Your task to perform on an android device: Open Wikipedia Image 0: 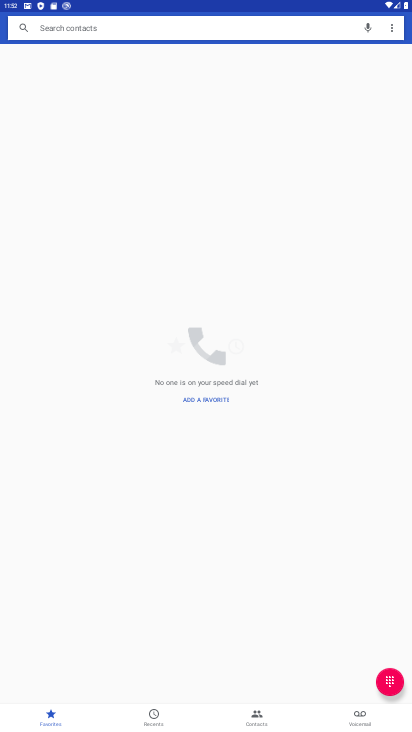
Step 0: press home button
Your task to perform on an android device: Open Wikipedia Image 1: 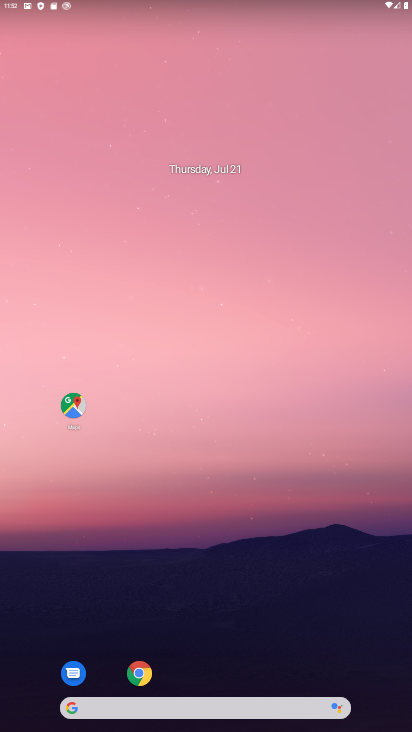
Step 1: click (168, 708)
Your task to perform on an android device: Open Wikipedia Image 2: 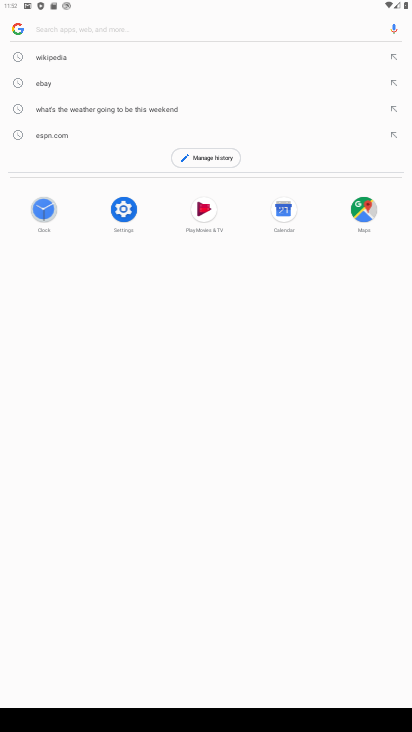
Step 2: type "Open Wikipedia"
Your task to perform on an android device: Open Wikipedia Image 3: 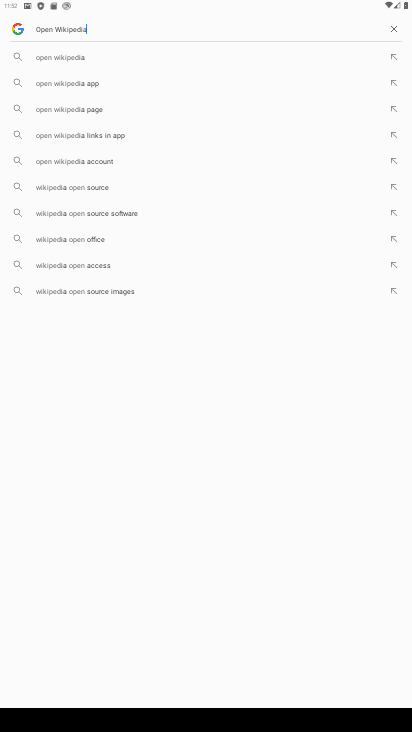
Step 3: press enter
Your task to perform on an android device: Open Wikipedia Image 4: 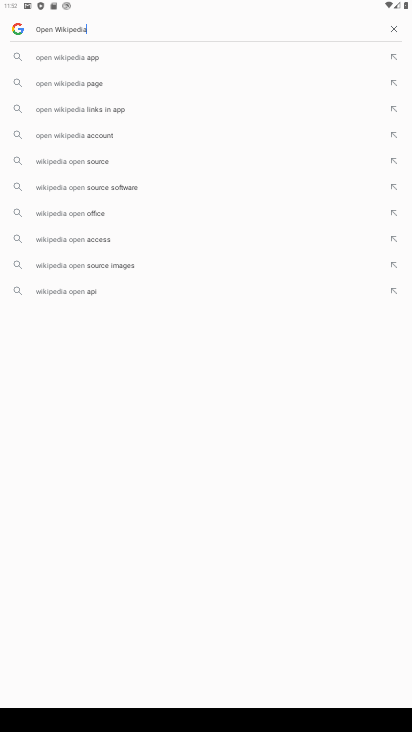
Step 4: type ""
Your task to perform on an android device: Open Wikipedia Image 5: 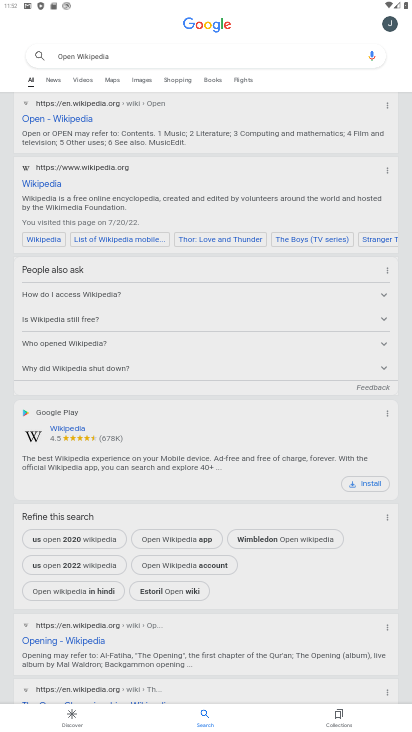
Step 5: click (47, 184)
Your task to perform on an android device: Open Wikipedia Image 6: 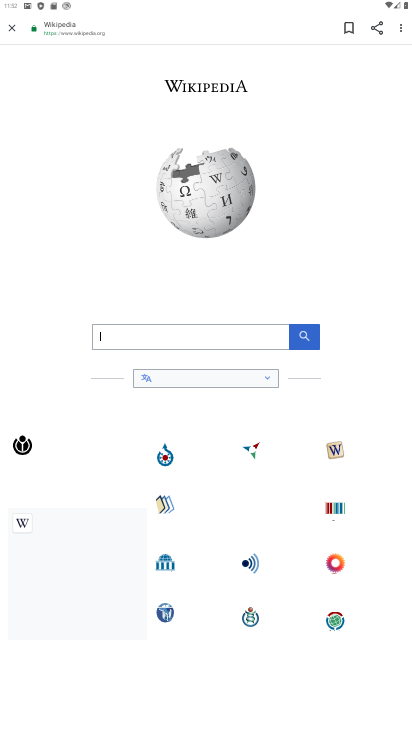
Step 6: task complete